Your task to perform on an android device: turn on the 24-hour format for clock Image 0: 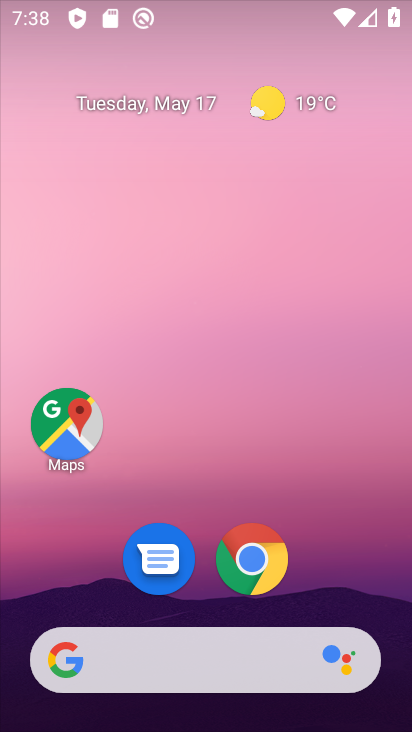
Step 0: drag from (206, 582) to (350, 159)
Your task to perform on an android device: turn on the 24-hour format for clock Image 1: 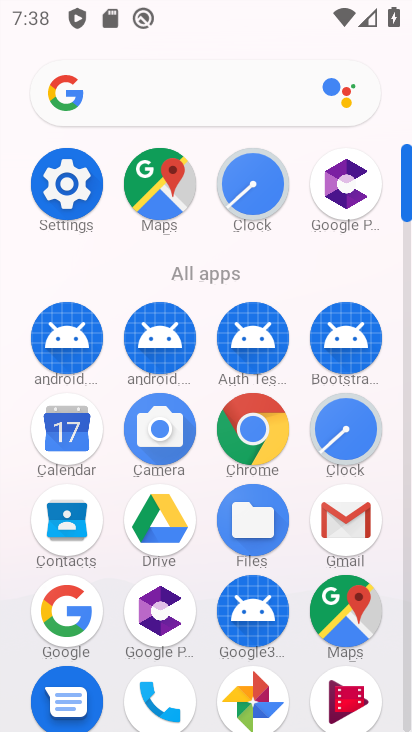
Step 1: click (348, 424)
Your task to perform on an android device: turn on the 24-hour format for clock Image 2: 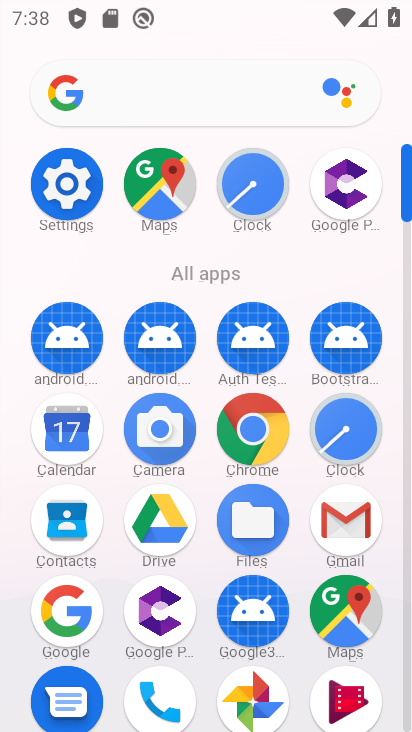
Step 2: click (348, 424)
Your task to perform on an android device: turn on the 24-hour format for clock Image 3: 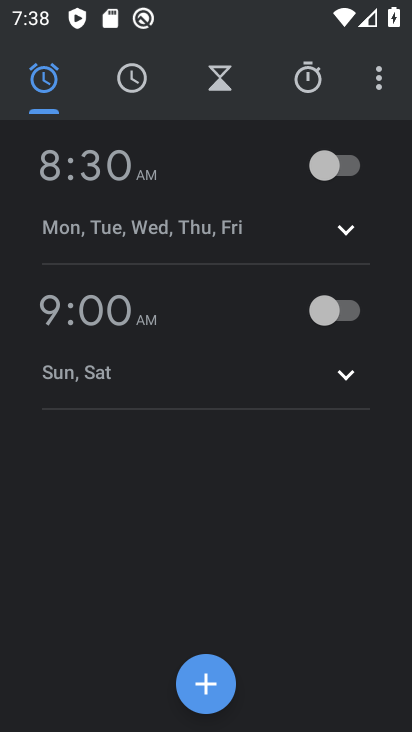
Step 3: click (378, 59)
Your task to perform on an android device: turn on the 24-hour format for clock Image 4: 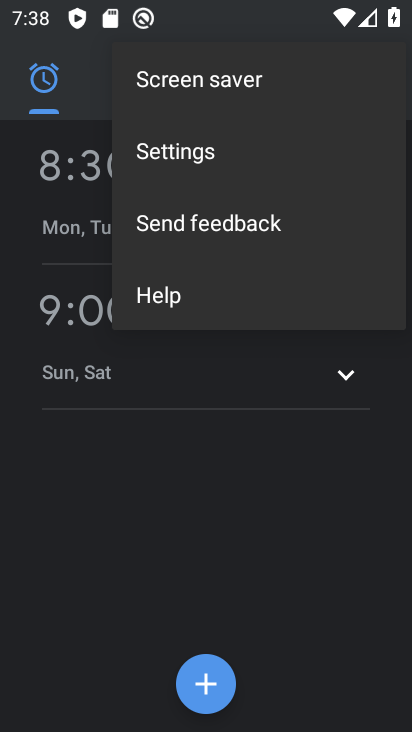
Step 4: click (273, 156)
Your task to perform on an android device: turn on the 24-hour format for clock Image 5: 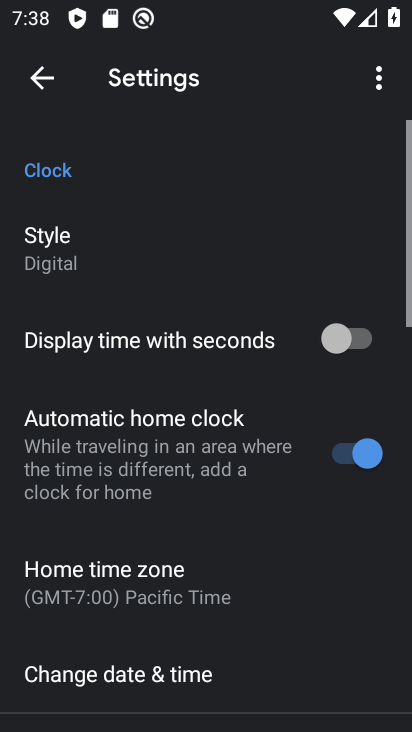
Step 5: drag from (208, 557) to (211, 70)
Your task to perform on an android device: turn on the 24-hour format for clock Image 6: 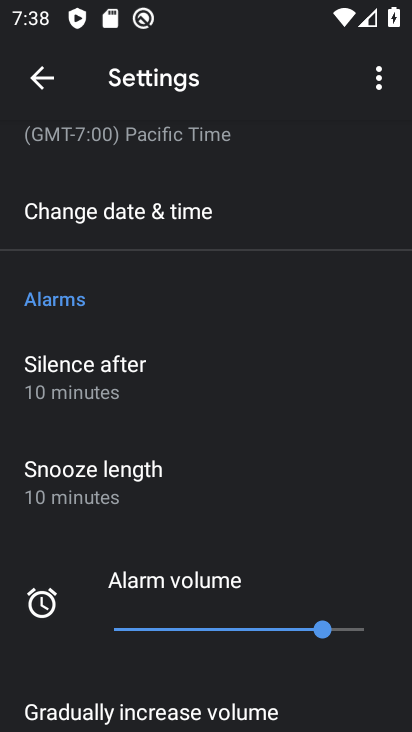
Step 6: click (146, 225)
Your task to perform on an android device: turn on the 24-hour format for clock Image 7: 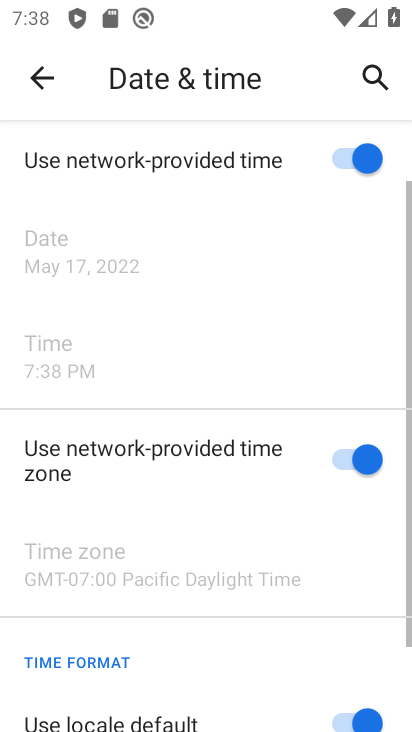
Step 7: drag from (153, 559) to (237, 24)
Your task to perform on an android device: turn on the 24-hour format for clock Image 8: 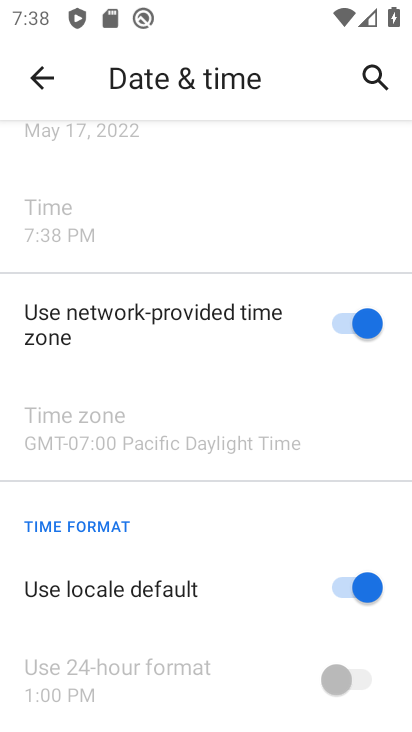
Step 8: click (343, 589)
Your task to perform on an android device: turn on the 24-hour format for clock Image 9: 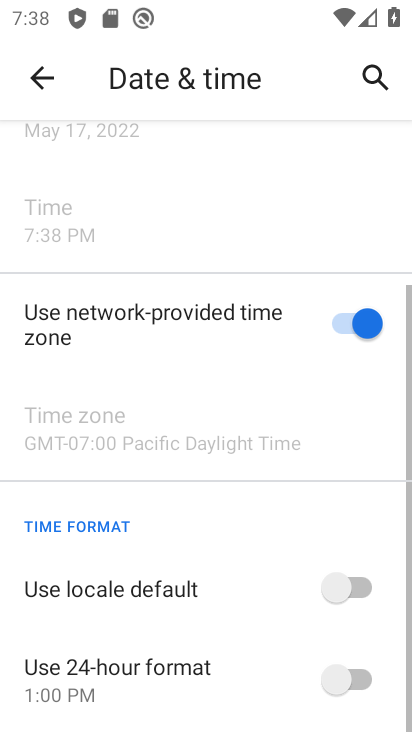
Step 9: click (330, 680)
Your task to perform on an android device: turn on the 24-hour format for clock Image 10: 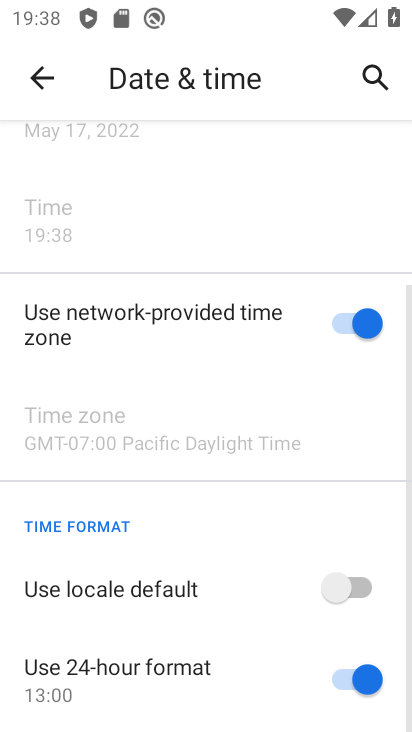
Step 10: task complete